Your task to perform on an android device: add a label to a message in the gmail app Image 0: 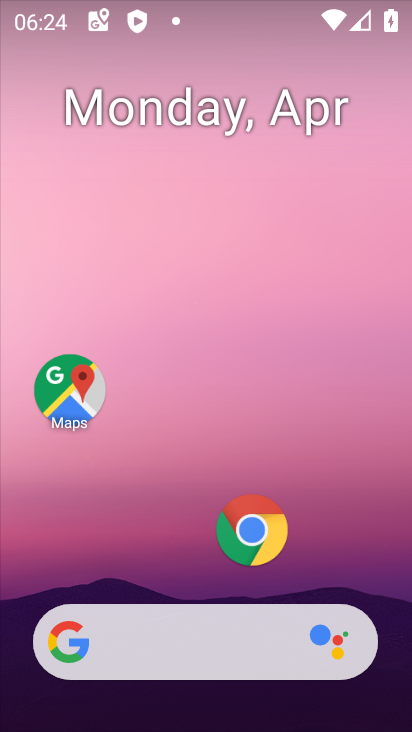
Step 0: click (250, 522)
Your task to perform on an android device: add a label to a message in the gmail app Image 1: 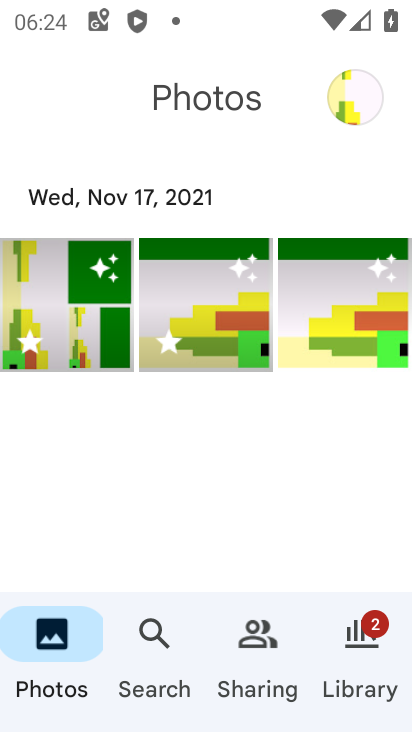
Step 1: press home button
Your task to perform on an android device: add a label to a message in the gmail app Image 2: 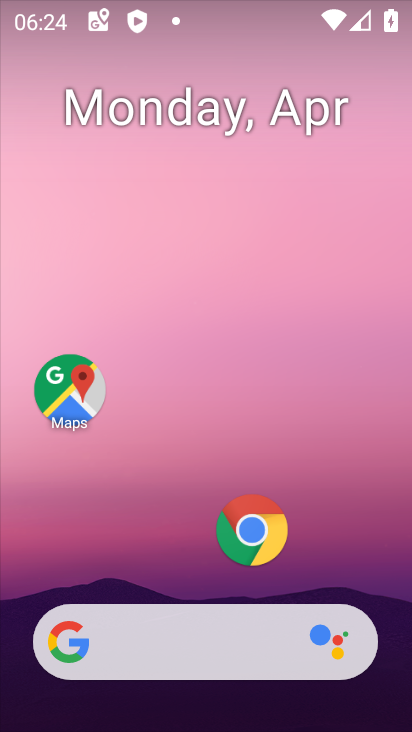
Step 2: drag from (197, 587) to (238, 51)
Your task to perform on an android device: add a label to a message in the gmail app Image 3: 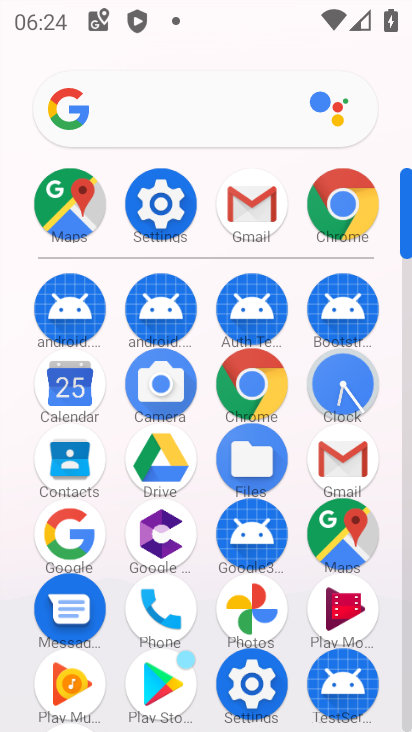
Step 3: click (343, 448)
Your task to perform on an android device: add a label to a message in the gmail app Image 4: 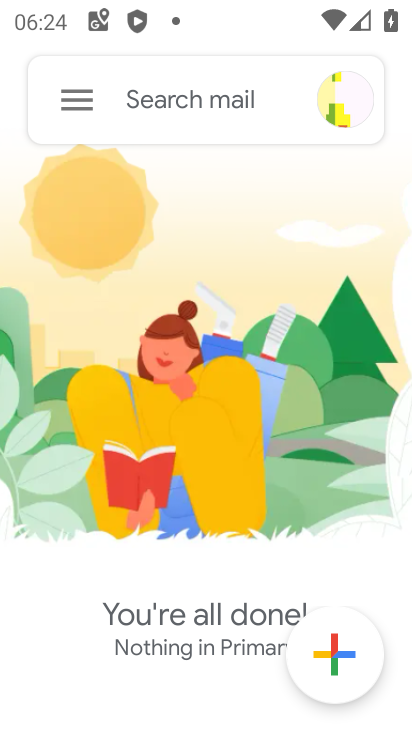
Step 4: click (75, 99)
Your task to perform on an android device: add a label to a message in the gmail app Image 5: 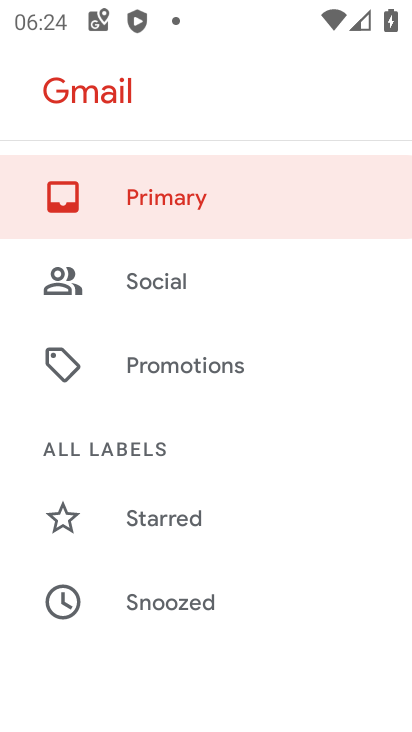
Step 5: drag from (151, 653) to (166, 166)
Your task to perform on an android device: add a label to a message in the gmail app Image 6: 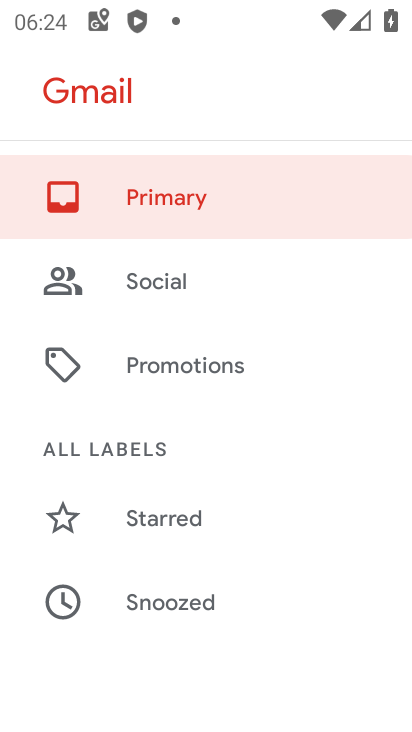
Step 6: drag from (104, 612) to (134, 140)
Your task to perform on an android device: add a label to a message in the gmail app Image 7: 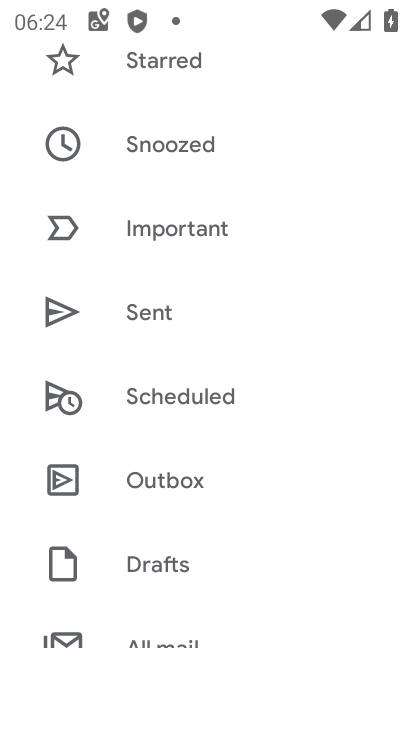
Step 7: drag from (125, 619) to (152, 305)
Your task to perform on an android device: add a label to a message in the gmail app Image 8: 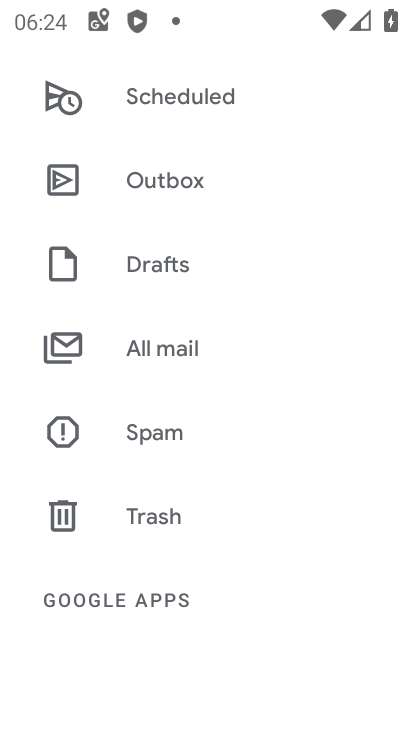
Step 8: click (112, 348)
Your task to perform on an android device: add a label to a message in the gmail app Image 9: 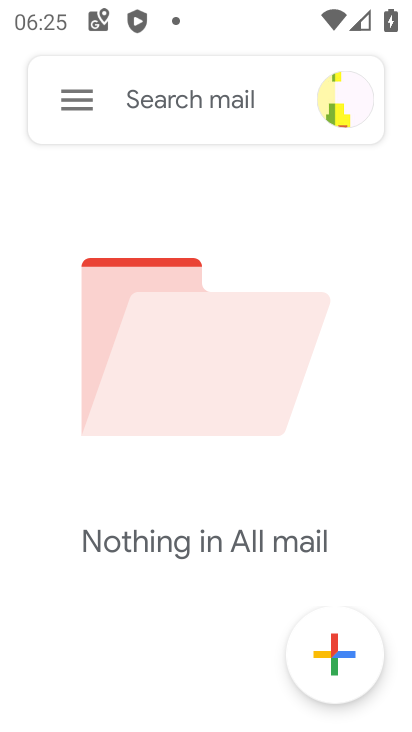
Step 9: click (84, 94)
Your task to perform on an android device: add a label to a message in the gmail app Image 10: 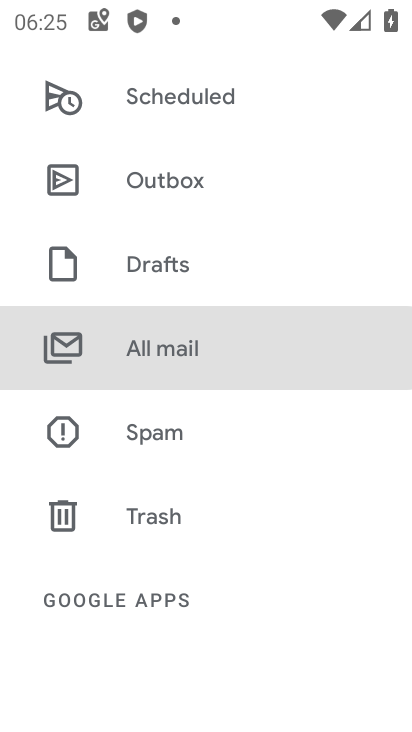
Step 10: click (106, 340)
Your task to perform on an android device: add a label to a message in the gmail app Image 11: 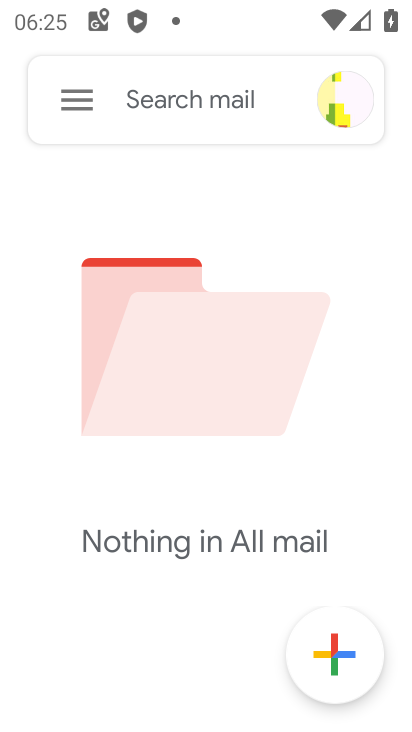
Step 11: task complete